Your task to perform on an android device: turn pop-ups on in chrome Image 0: 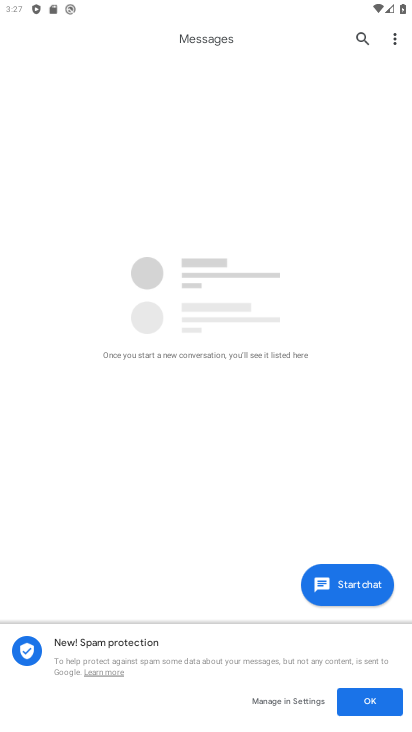
Step 0: press back button
Your task to perform on an android device: turn pop-ups on in chrome Image 1: 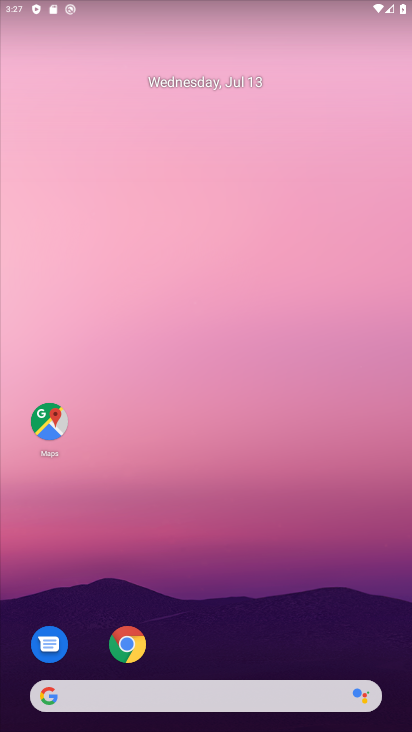
Step 1: click (120, 633)
Your task to perform on an android device: turn pop-ups on in chrome Image 2: 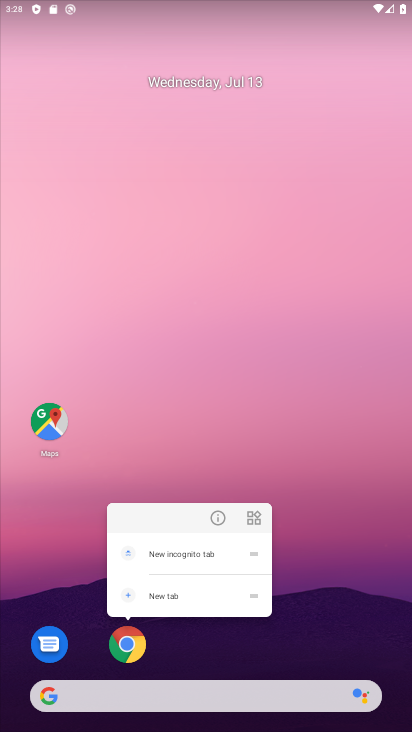
Step 2: click (127, 655)
Your task to perform on an android device: turn pop-ups on in chrome Image 3: 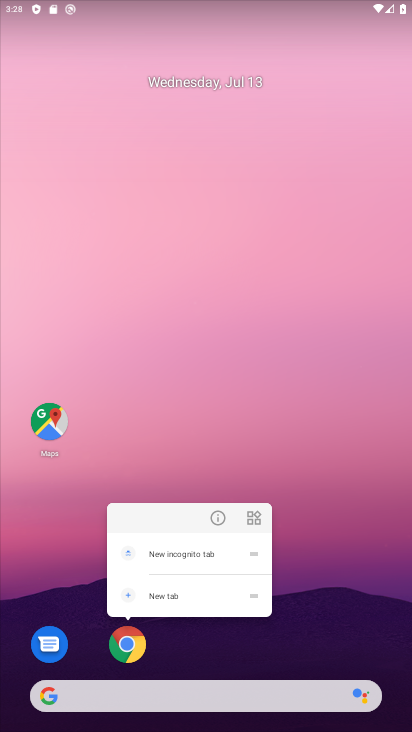
Step 3: click (126, 641)
Your task to perform on an android device: turn pop-ups on in chrome Image 4: 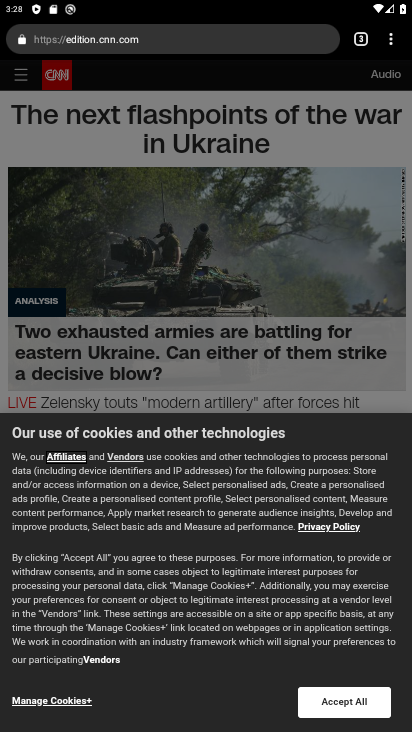
Step 4: drag from (391, 40) to (247, 431)
Your task to perform on an android device: turn pop-ups on in chrome Image 5: 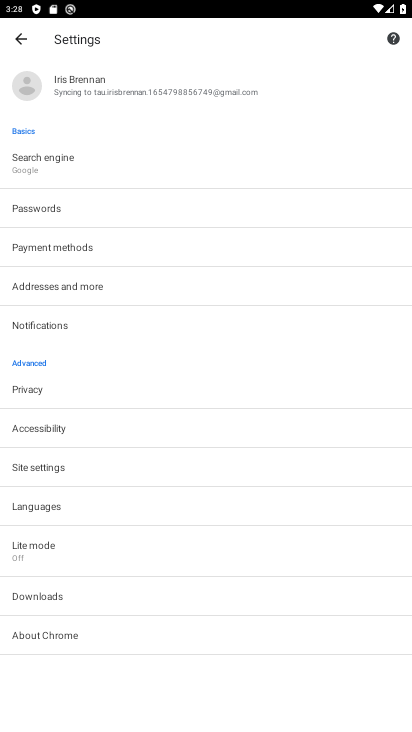
Step 5: click (73, 465)
Your task to perform on an android device: turn pop-ups on in chrome Image 6: 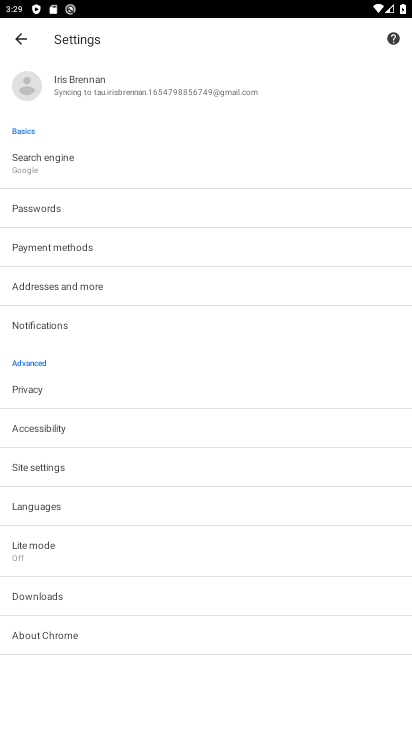
Step 6: click (33, 467)
Your task to perform on an android device: turn pop-ups on in chrome Image 7: 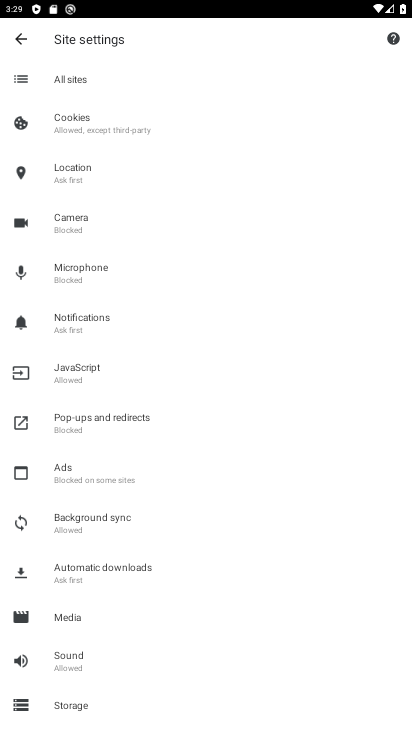
Step 7: click (140, 422)
Your task to perform on an android device: turn pop-ups on in chrome Image 8: 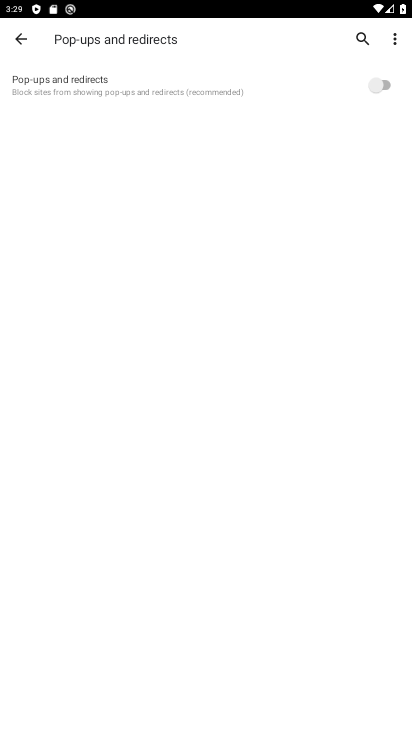
Step 8: click (363, 83)
Your task to perform on an android device: turn pop-ups on in chrome Image 9: 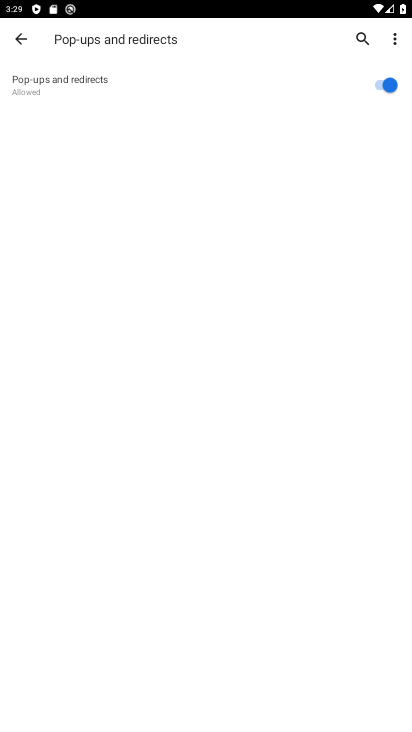
Step 9: task complete